Your task to perform on an android device: Show me popular videos on Youtube Image 0: 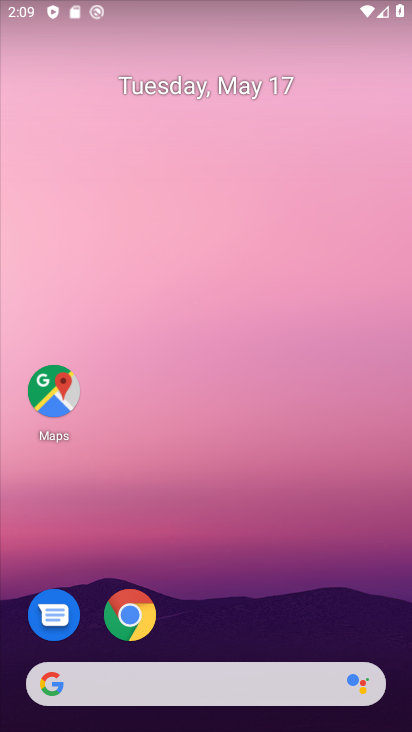
Step 0: drag from (195, 500) to (196, 89)
Your task to perform on an android device: Show me popular videos on Youtube Image 1: 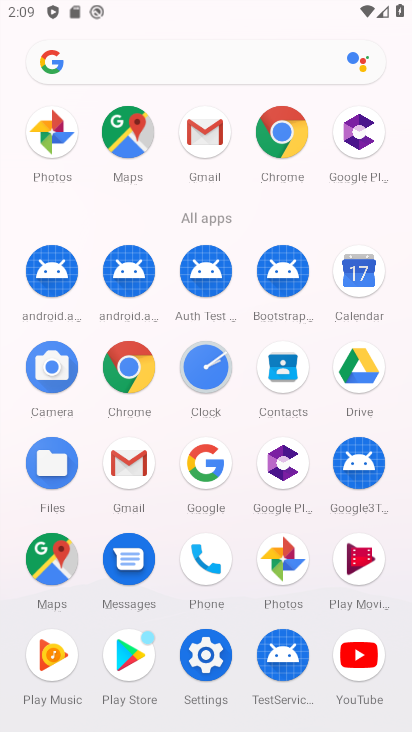
Step 1: click (365, 655)
Your task to perform on an android device: Show me popular videos on Youtube Image 2: 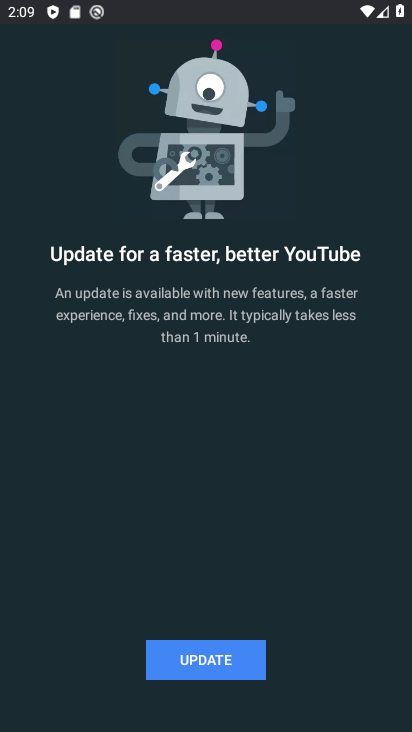
Step 2: task complete